Your task to perform on an android device: check android version Image 0: 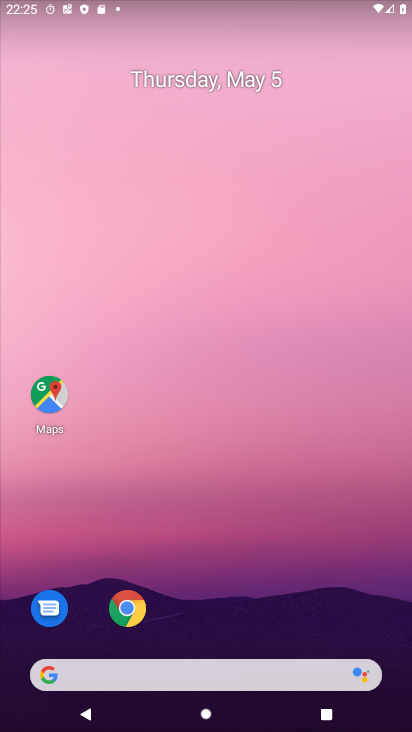
Step 0: drag from (377, 629) to (356, 14)
Your task to perform on an android device: check android version Image 1: 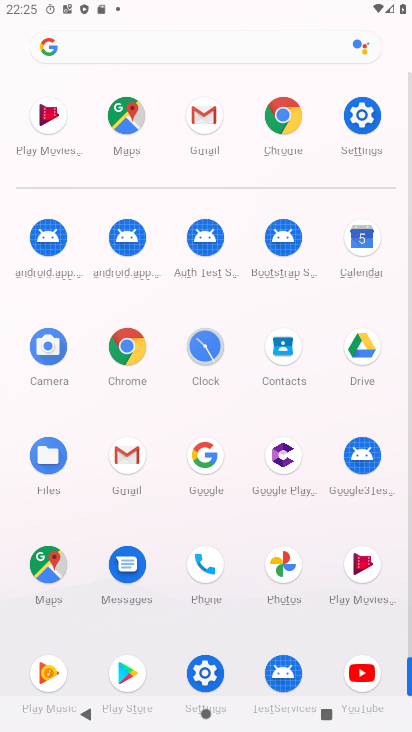
Step 1: click (354, 115)
Your task to perform on an android device: check android version Image 2: 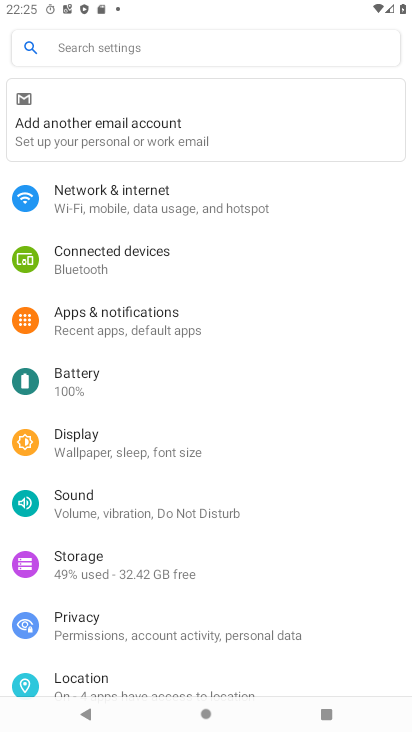
Step 2: drag from (260, 686) to (229, 107)
Your task to perform on an android device: check android version Image 3: 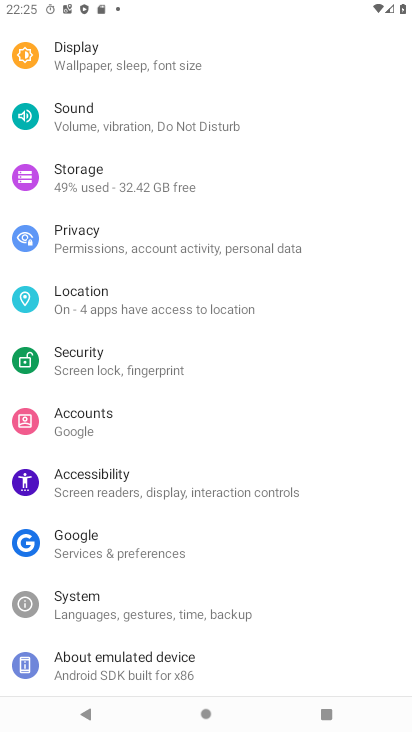
Step 3: click (184, 677)
Your task to perform on an android device: check android version Image 4: 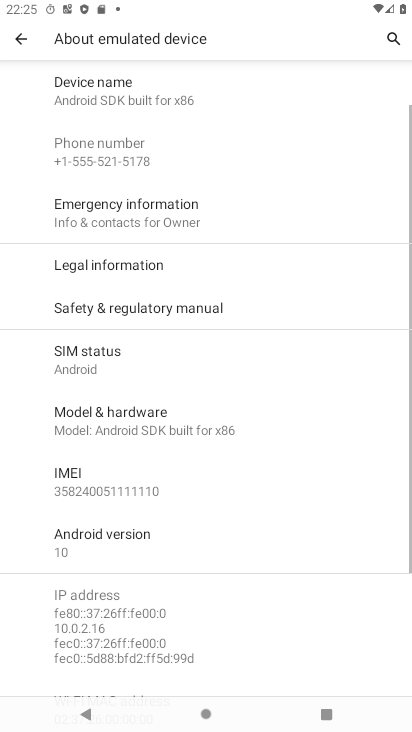
Step 4: drag from (257, 218) to (283, 701)
Your task to perform on an android device: check android version Image 5: 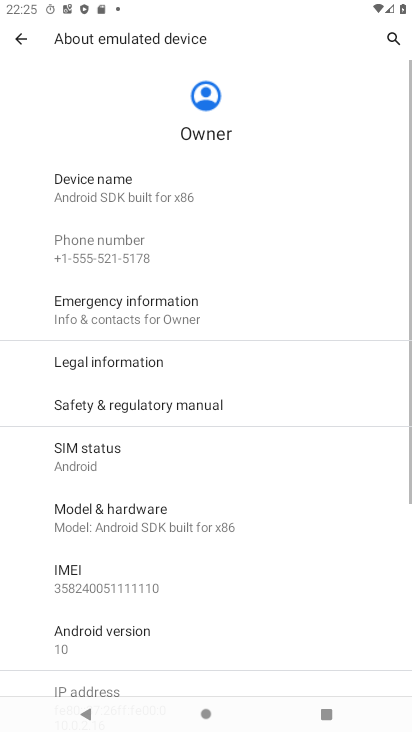
Step 5: drag from (202, 612) to (232, 51)
Your task to perform on an android device: check android version Image 6: 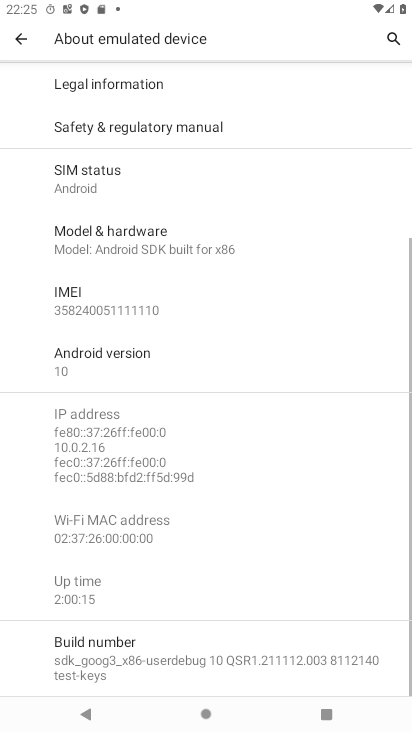
Step 6: click (166, 357)
Your task to perform on an android device: check android version Image 7: 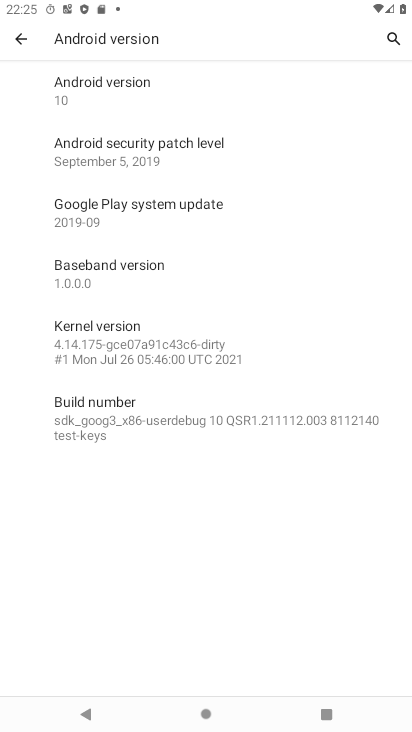
Step 7: task complete